Your task to perform on an android device: Search for logitech g933 on walmart, select the first entry, add it to the cart, then select checkout. Image 0: 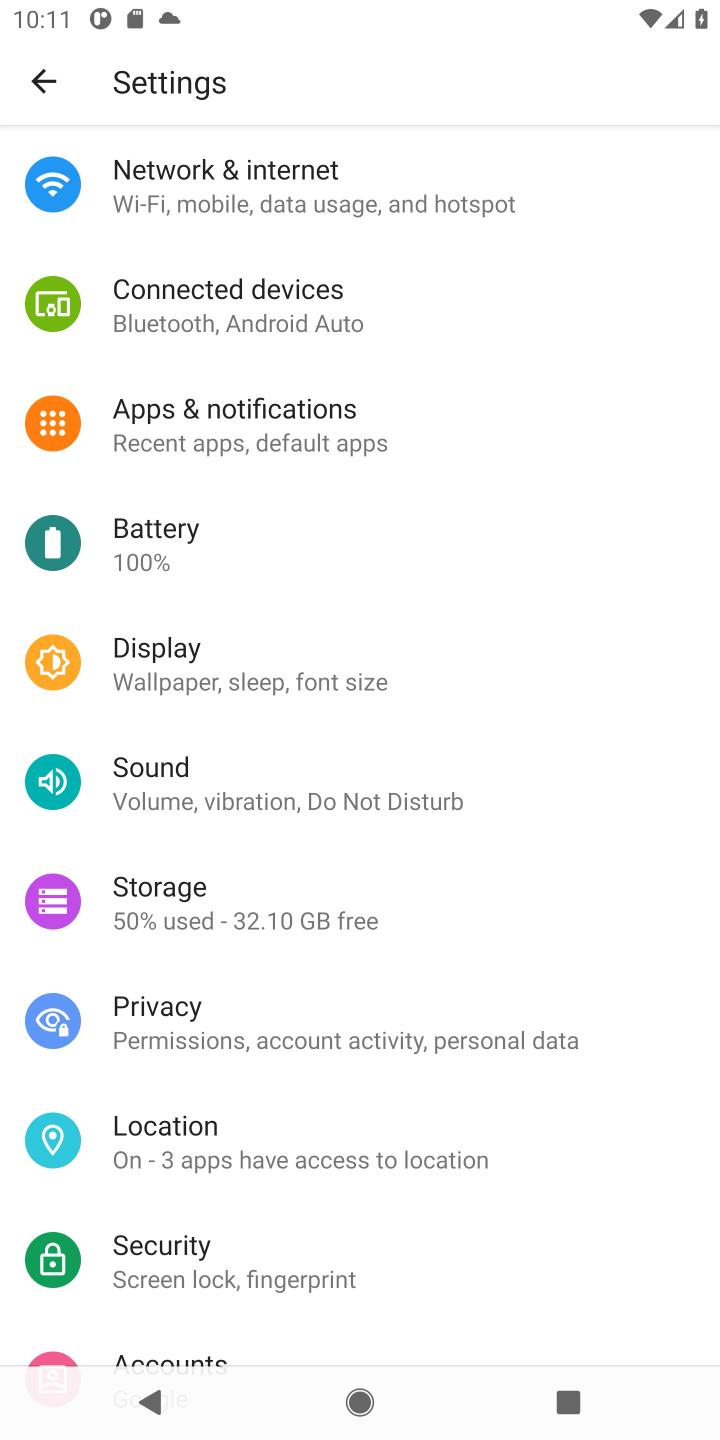
Step 0: press home button
Your task to perform on an android device: Search for logitech g933 on walmart, select the first entry, add it to the cart, then select checkout. Image 1: 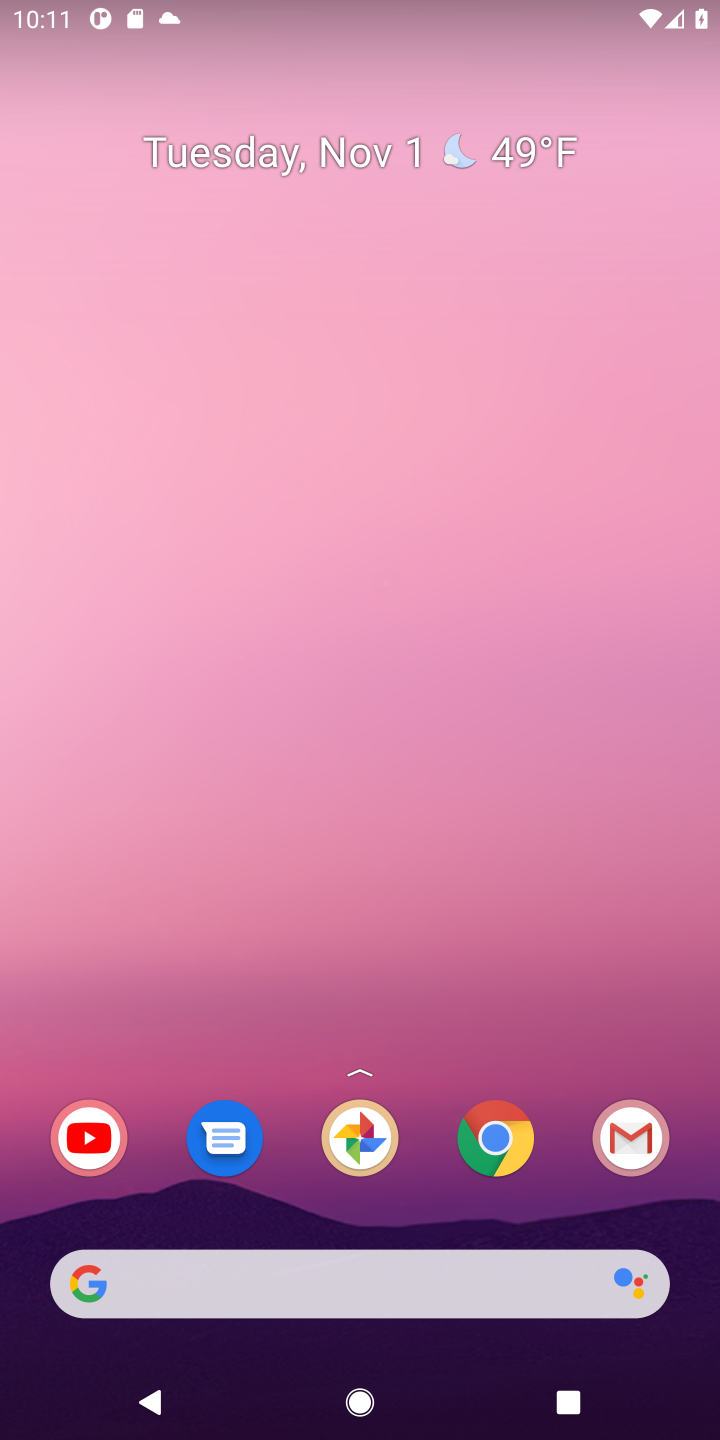
Step 1: click (507, 1137)
Your task to perform on an android device: Search for logitech g933 on walmart, select the first entry, add it to the cart, then select checkout. Image 2: 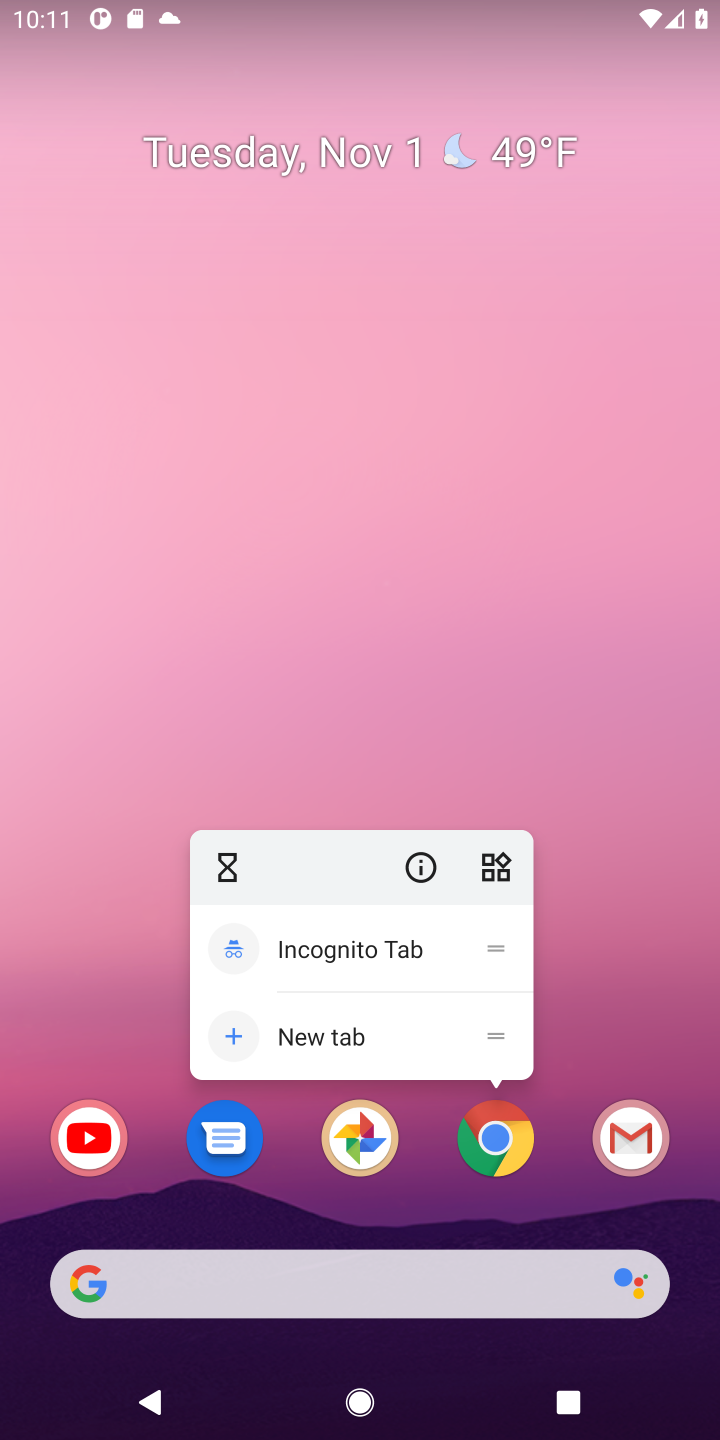
Step 2: click (514, 1138)
Your task to perform on an android device: Search for logitech g933 on walmart, select the first entry, add it to the cart, then select checkout. Image 3: 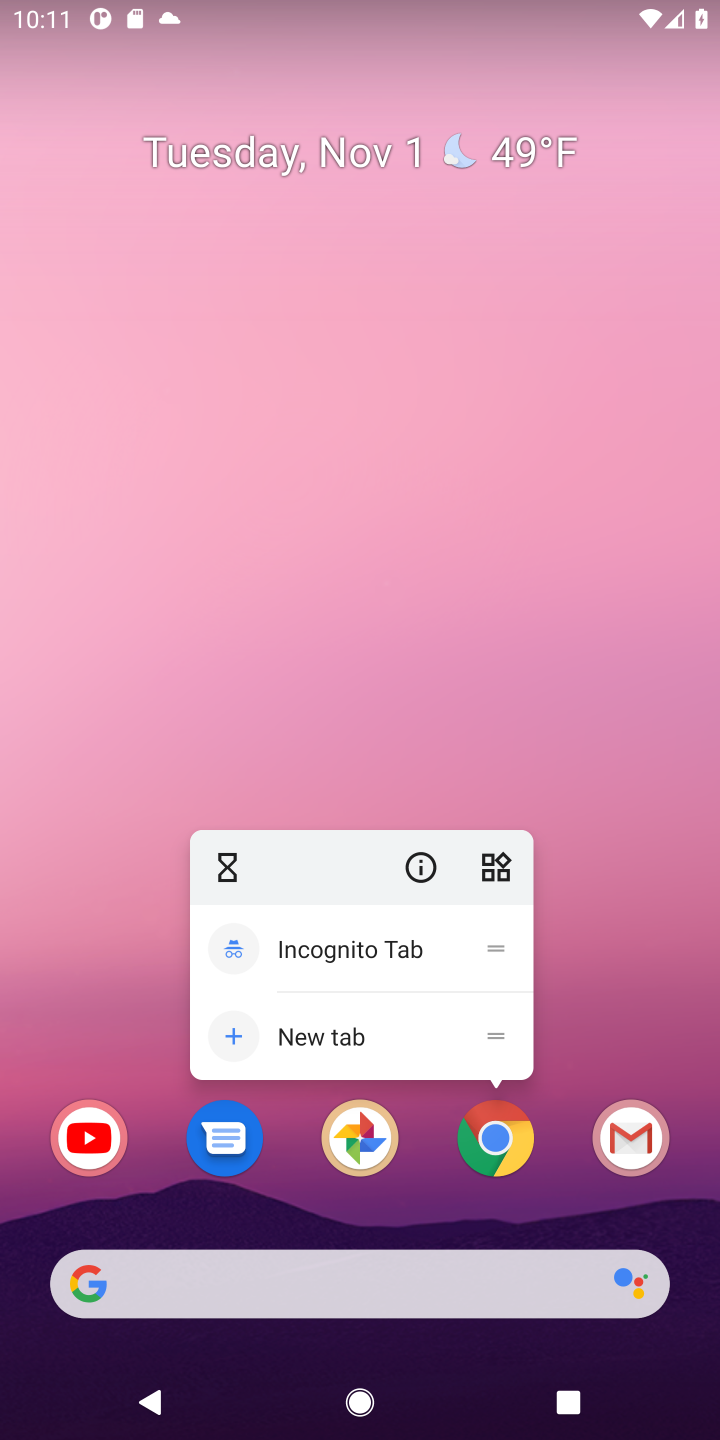
Step 3: click (498, 1135)
Your task to perform on an android device: Search for logitech g933 on walmart, select the first entry, add it to the cart, then select checkout. Image 4: 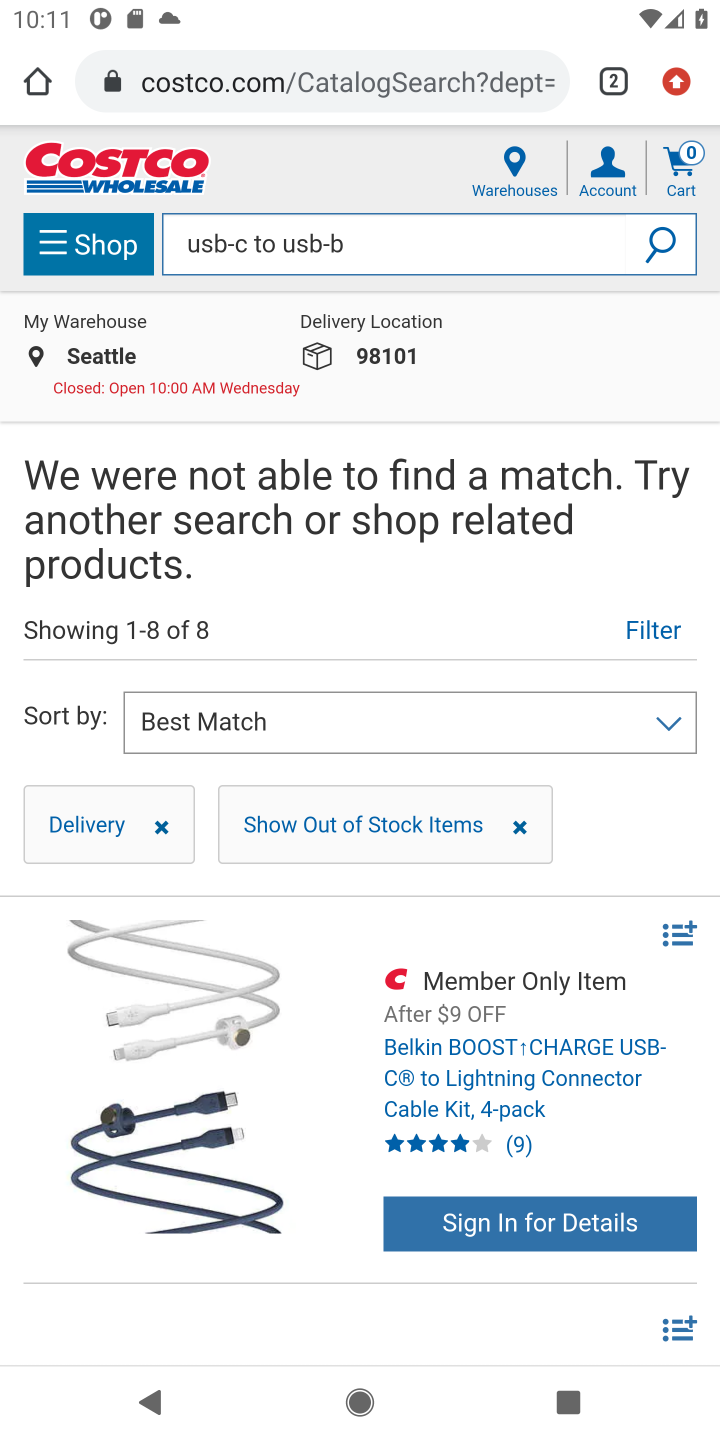
Step 4: click (366, 78)
Your task to perform on an android device: Search for logitech g933 on walmart, select the first entry, add it to the cart, then select checkout. Image 5: 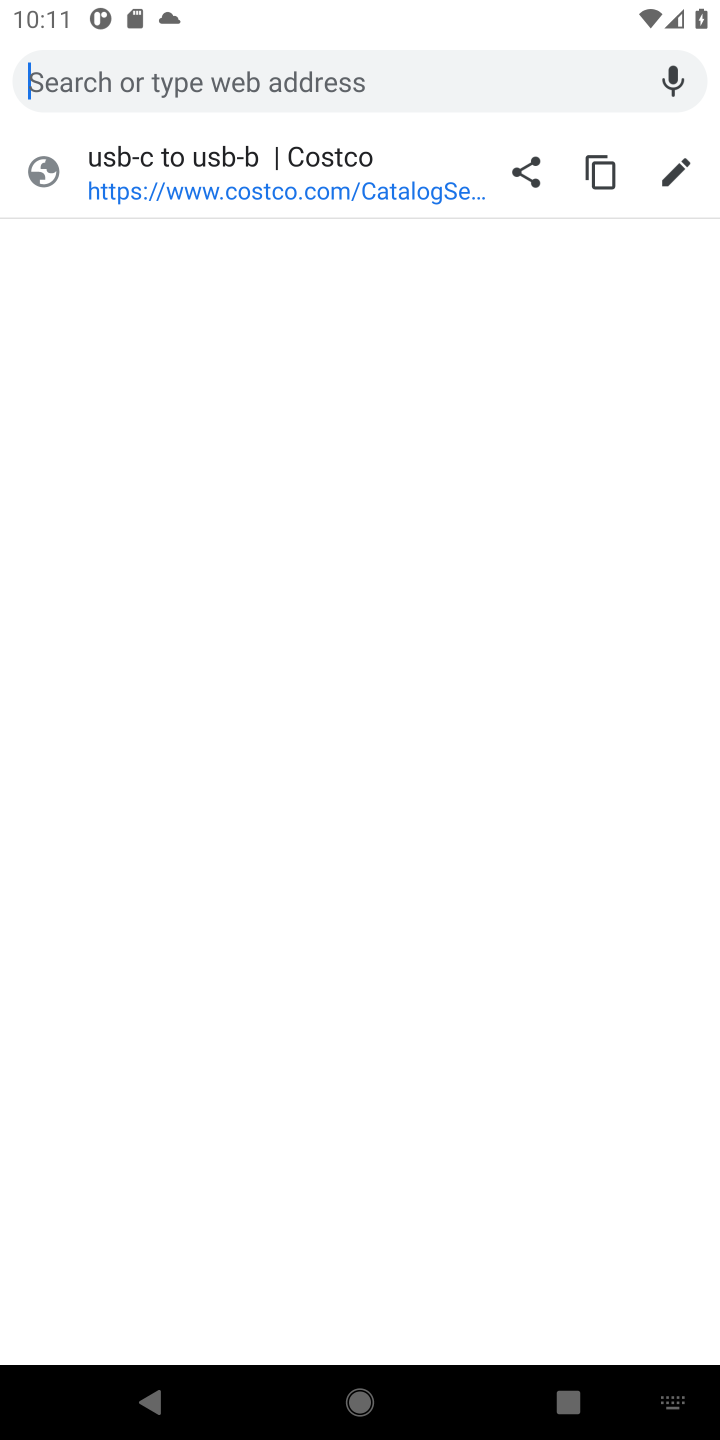
Step 5: type "walmart"
Your task to perform on an android device: Search for logitech g933 on walmart, select the first entry, add it to the cart, then select checkout. Image 6: 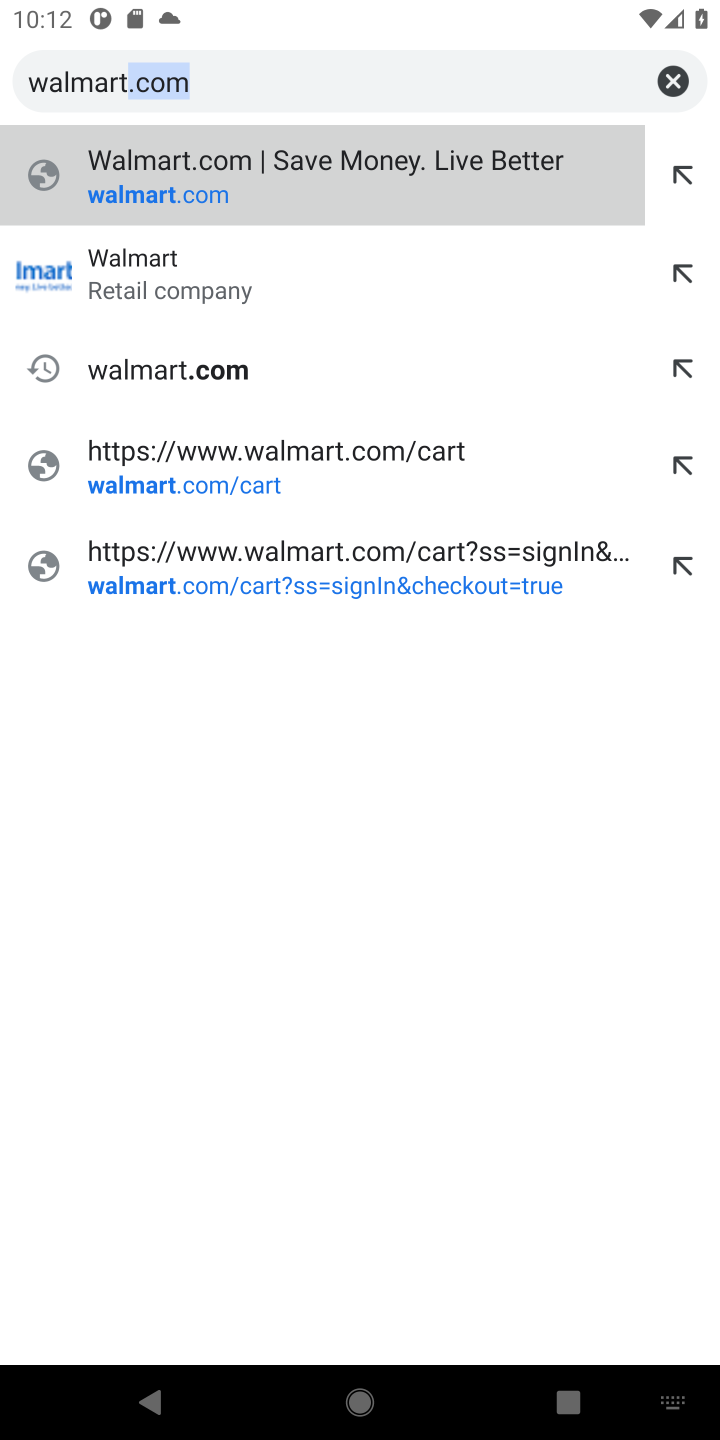
Step 6: click (202, 256)
Your task to perform on an android device: Search for logitech g933 on walmart, select the first entry, add it to the cart, then select checkout. Image 7: 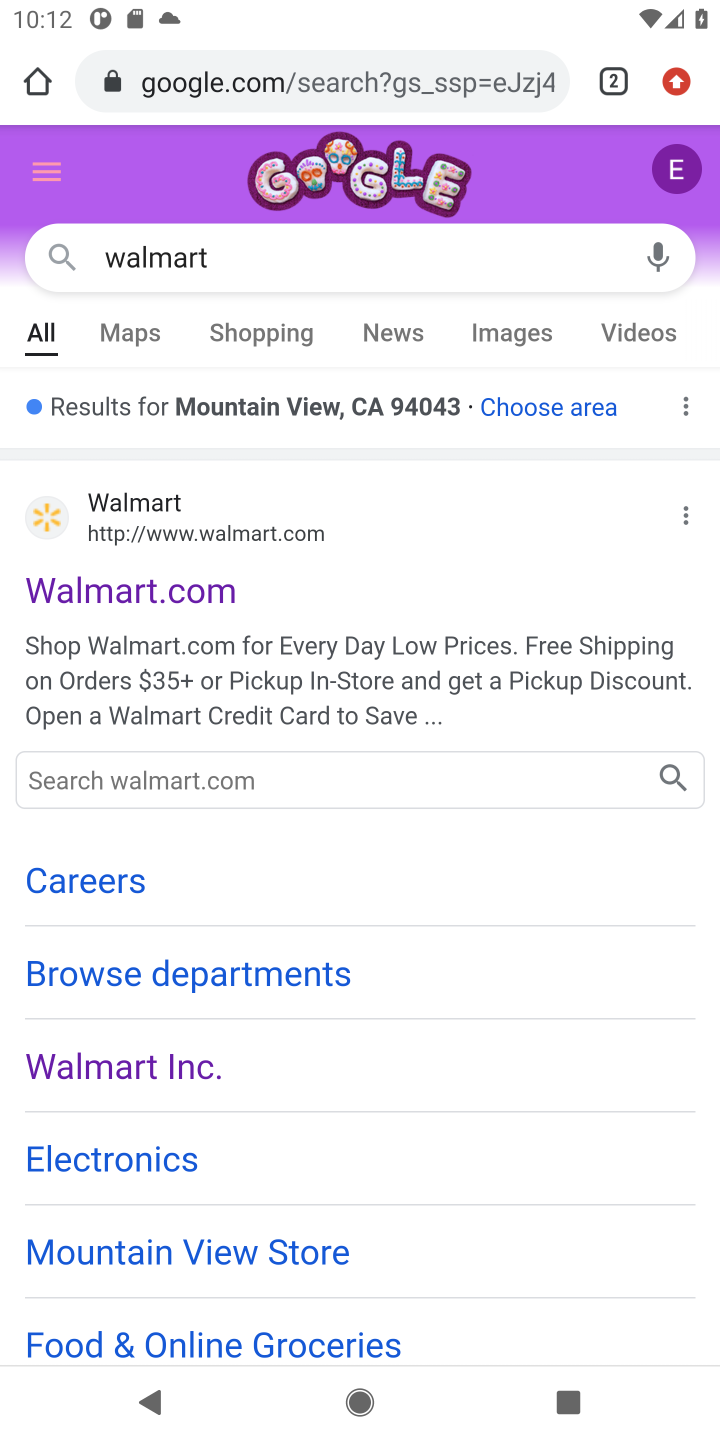
Step 7: click (224, 551)
Your task to perform on an android device: Search for logitech g933 on walmart, select the first entry, add it to the cart, then select checkout. Image 8: 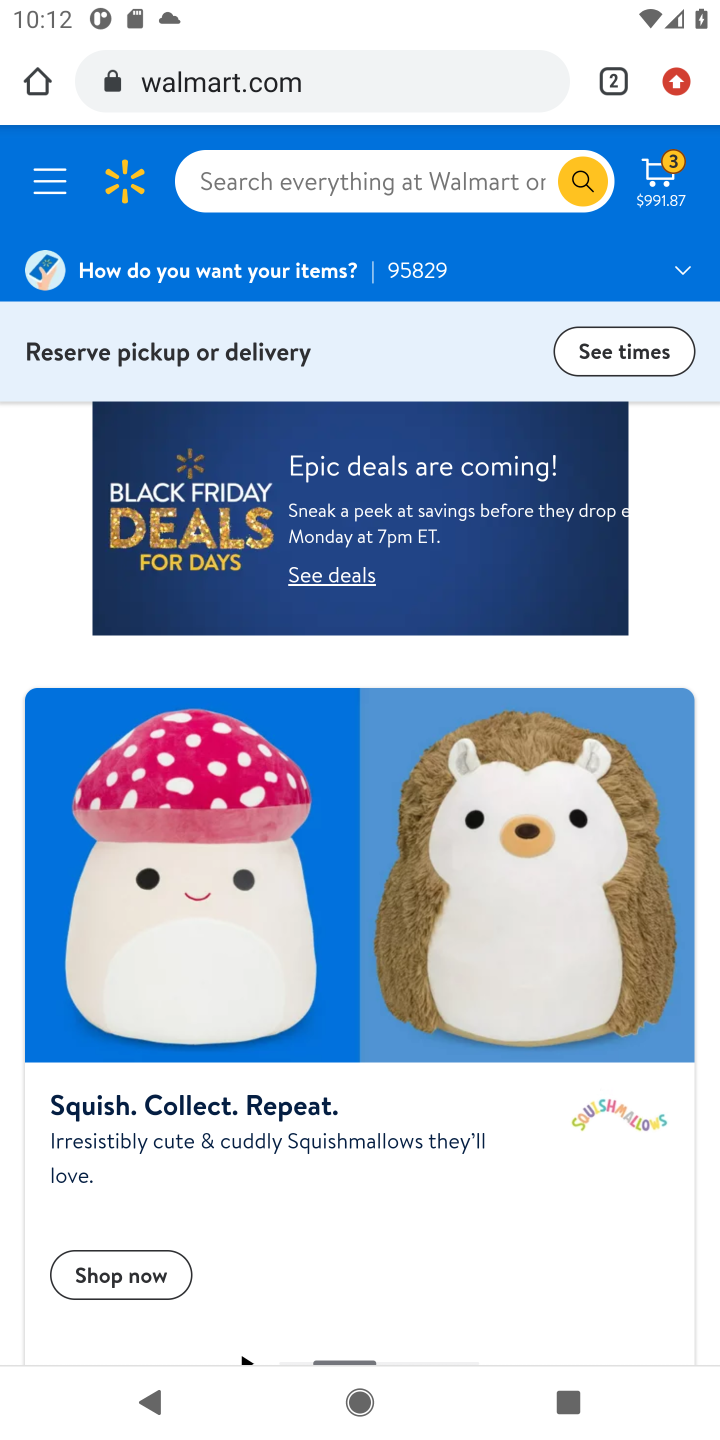
Step 8: click (327, 160)
Your task to perform on an android device: Search for logitech g933 on walmart, select the first entry, add it to the cart, then select checkout. Image 9: 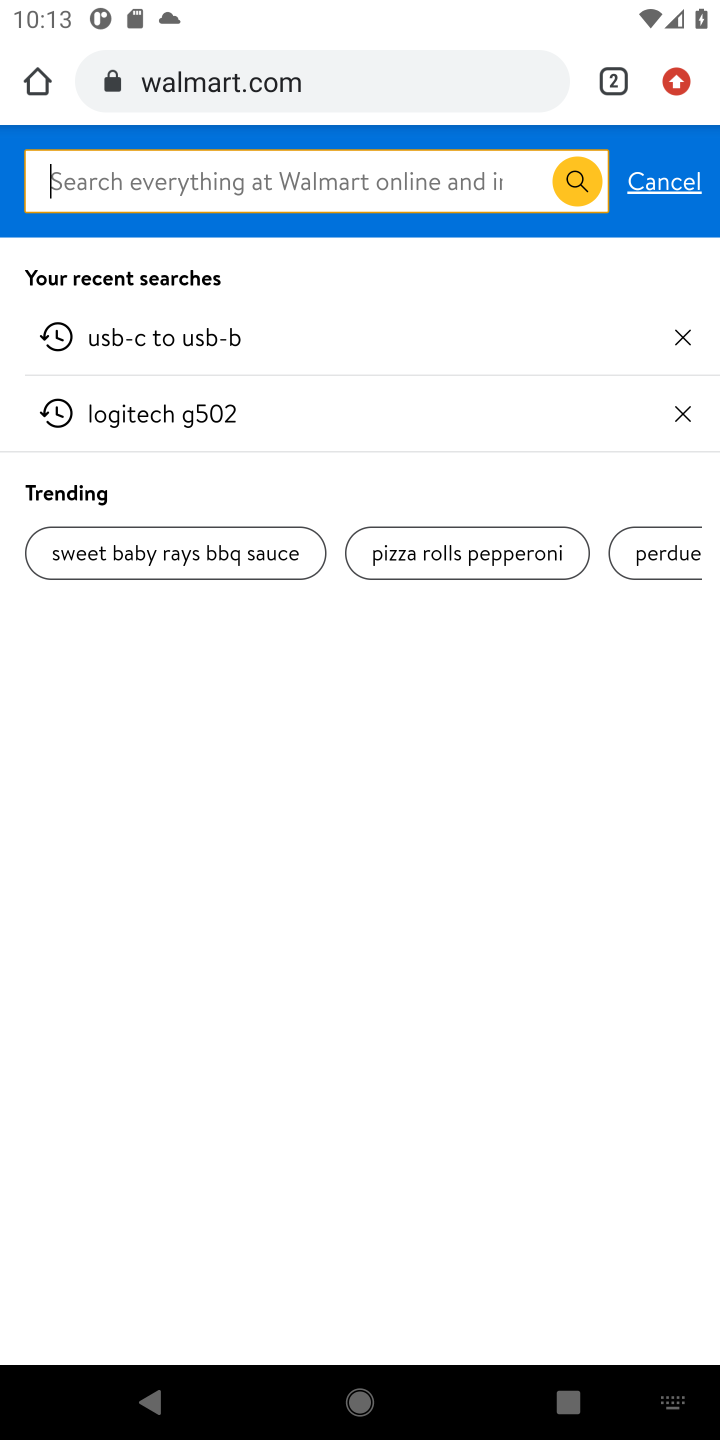
Step 9: type "logitech g933"
Your task to perform on an android device: Search for logitech g933 on walmart, select the first entry, add it to the cart, then select checkout. Image 10: 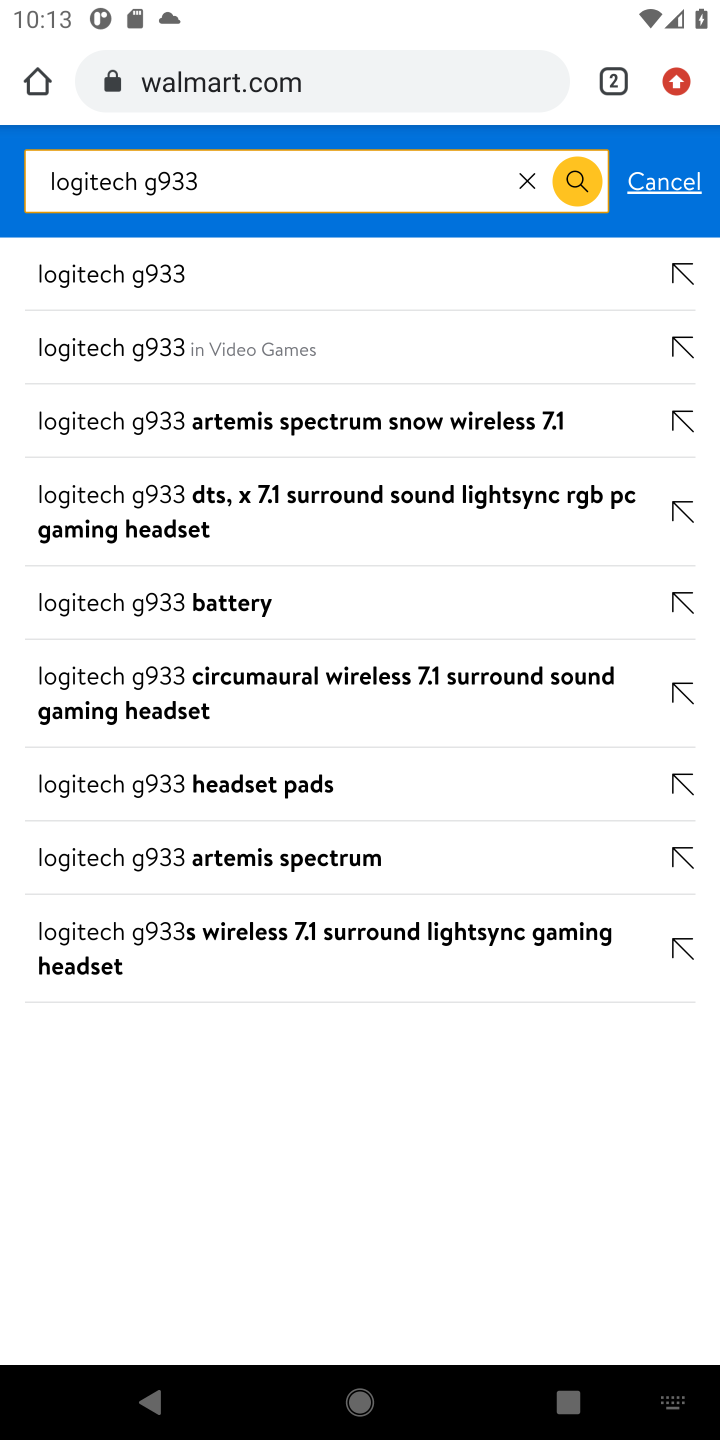
Step 10: click (161, 285)
Your task to perform on an android device: Search for logitech g933 on walmart, select the first entry, add it to the cart, then select checkout. Image 11: 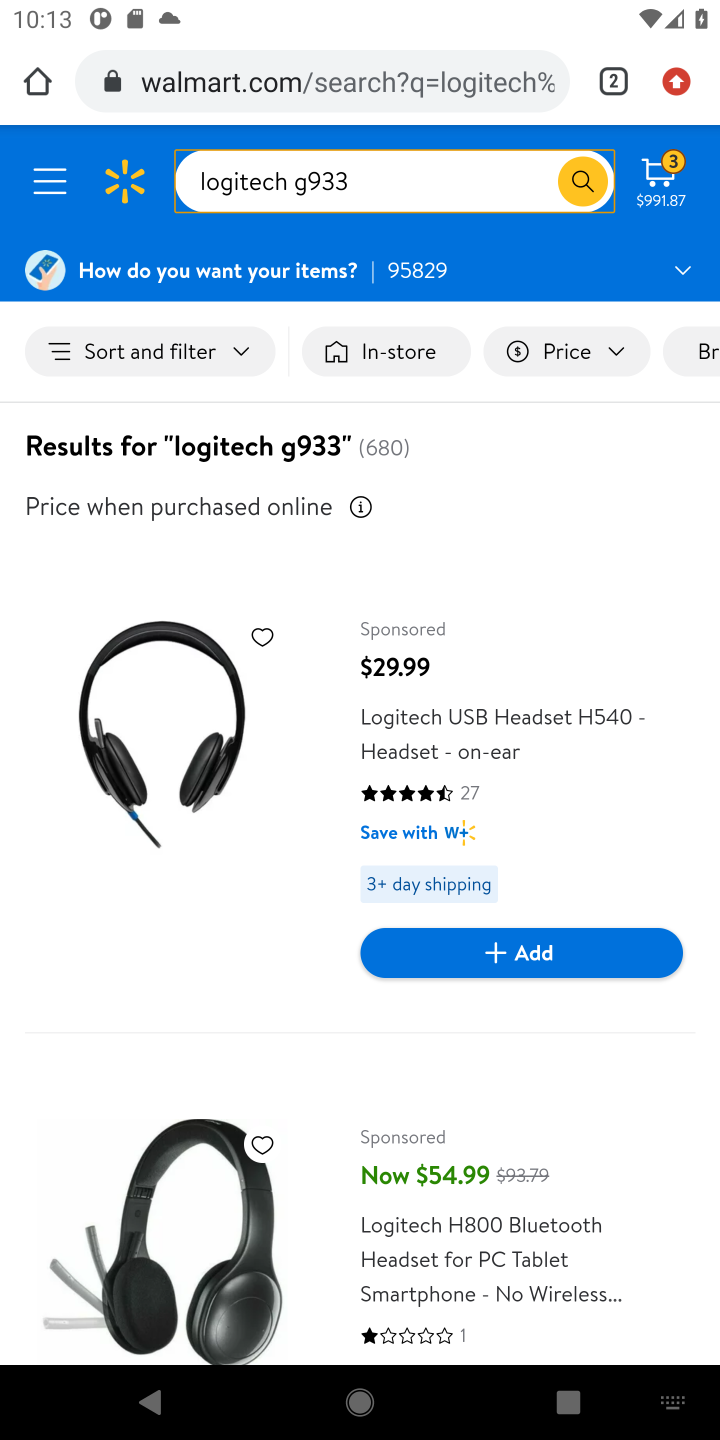
Step 11: click (536, 956)
Your task to perform on an android device: Search for logitech g933 on walmart, select the first entry, add it to the cart, then select checkout. Image 12: 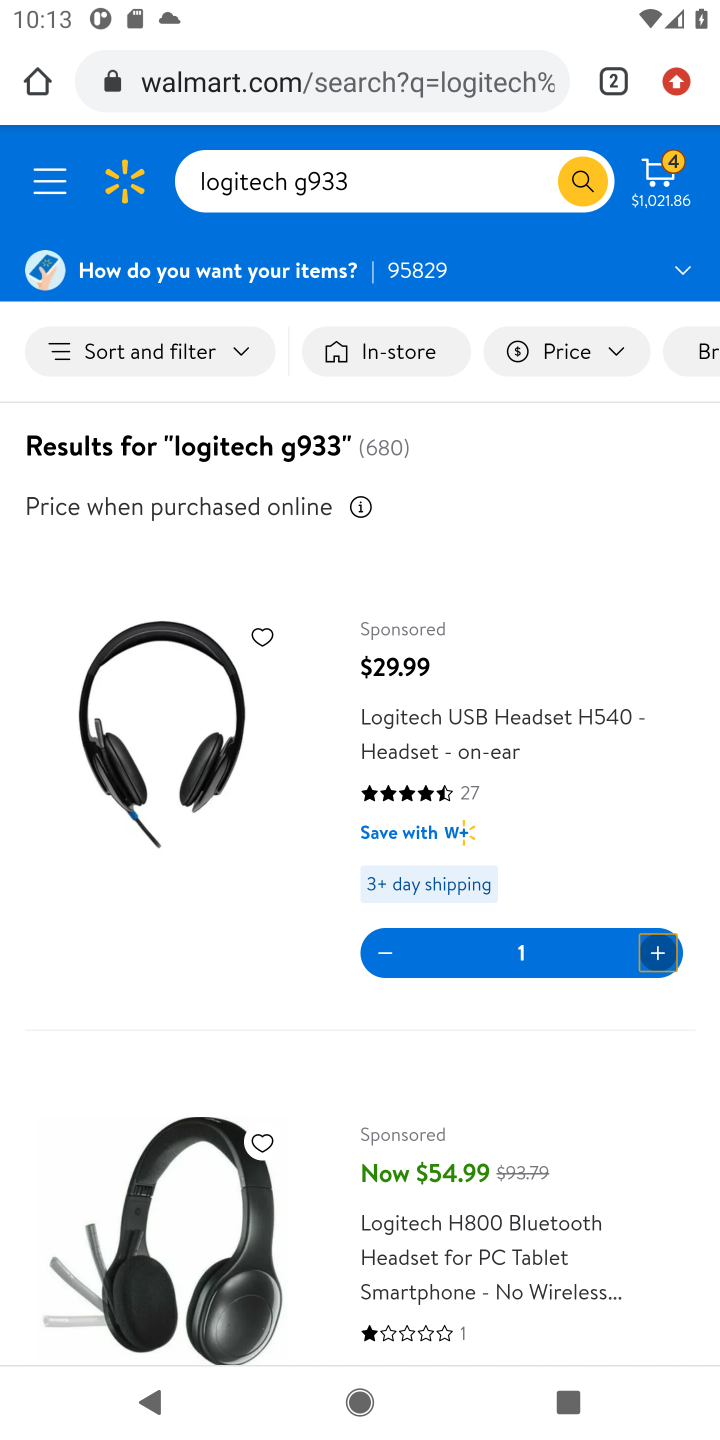
Step 12: click (674, 189)
Your task to perform on an android device: Search for logitech g933 on walmart, select the first entry, add it to the cart, then select checkout. Image 13: 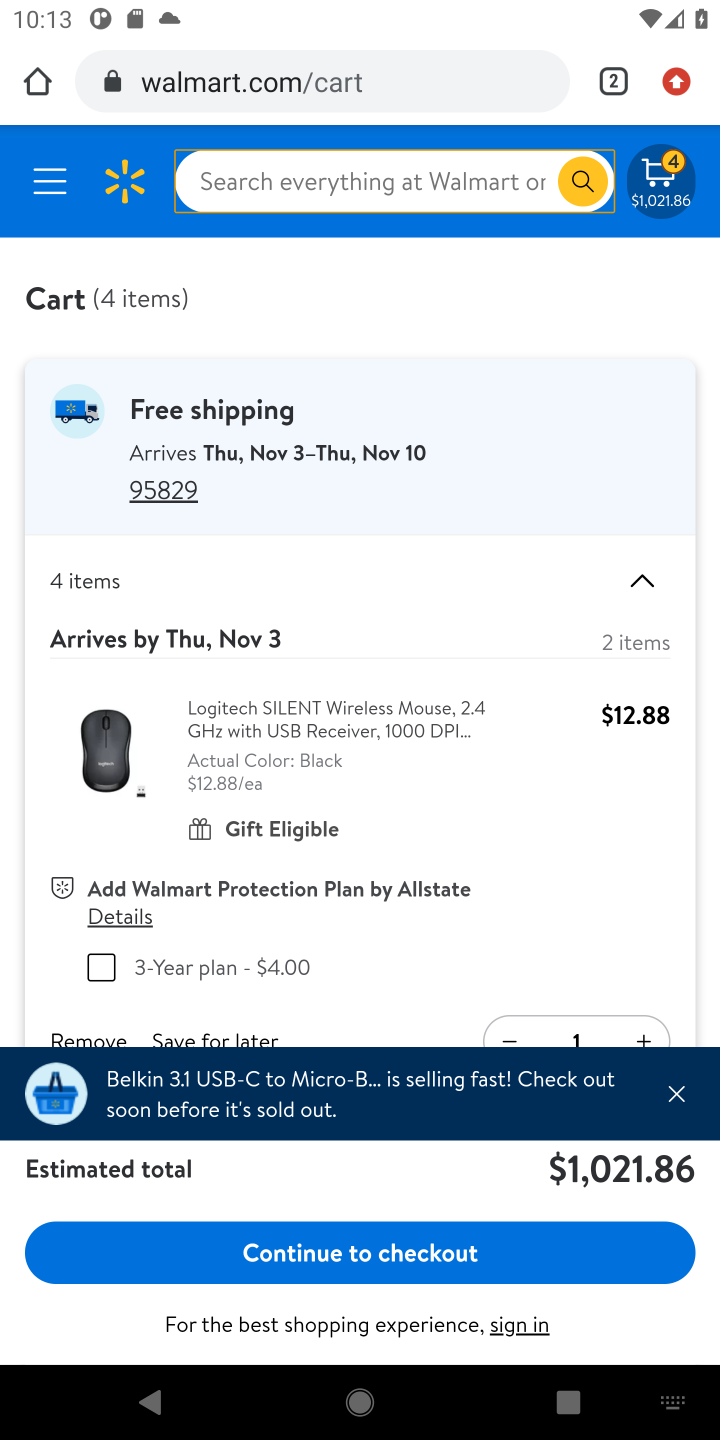
Step 13: click (373, 1249)
Your task to perform on an android device: Search for logitech g933 on walmart, select the first entry, add it to the cart, then select checkout. Image 14: 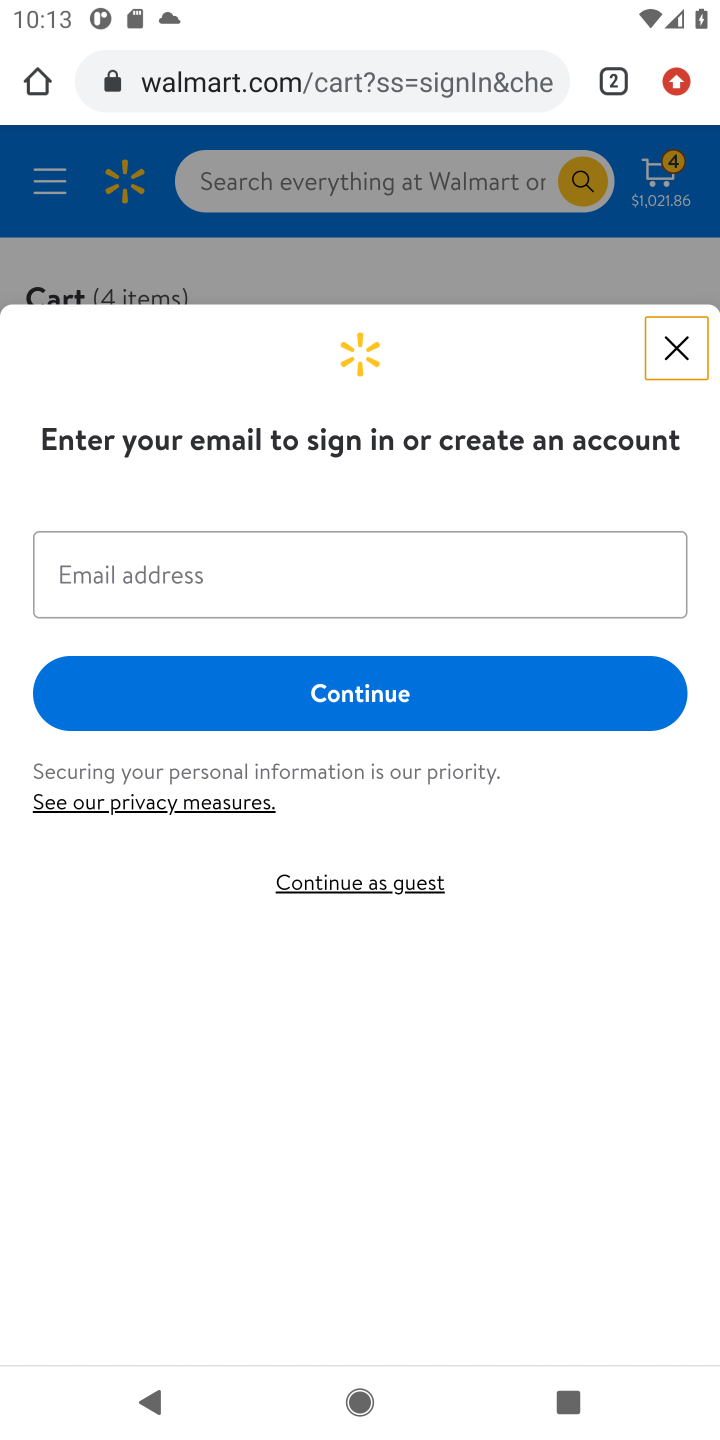
Step 14: task complete